Your task to perform on an android device: Go to network settings Image 0: 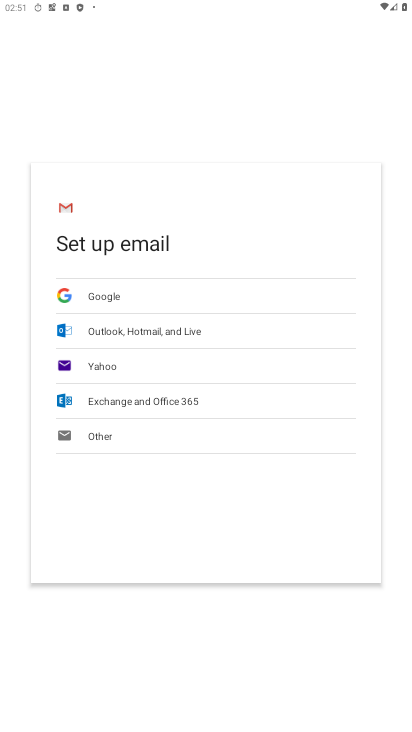
Step 0: press home button
Your task to perform on an android device: Go to network settings Image 1: 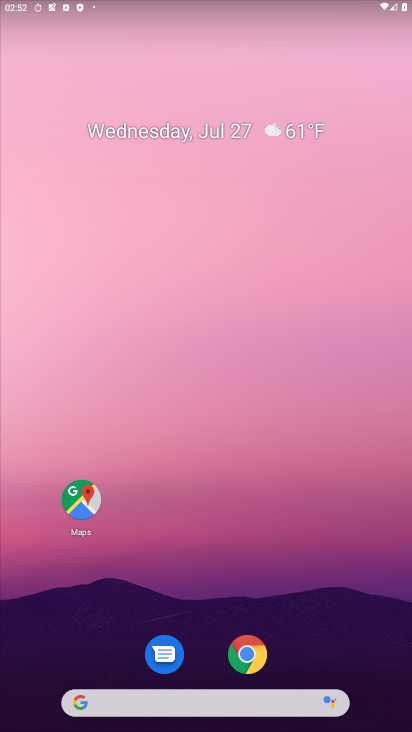
Step 1: drag from (192, 698) to (202, 129)
Your task to perform on an android device: Go to network settings Image 2: 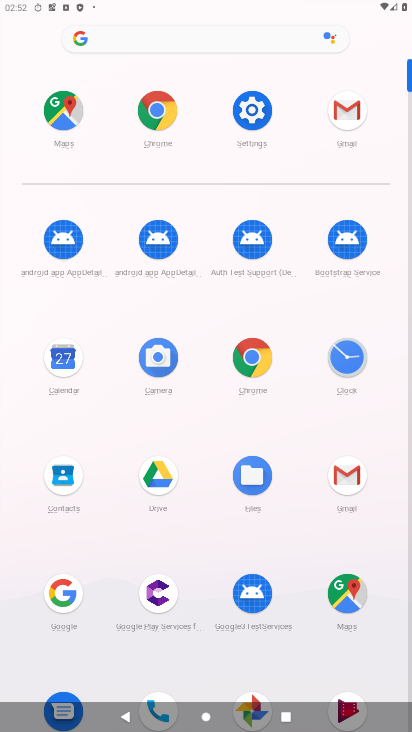
Step 2: click (240, 109)
Your task to perform on an android device: Go to network settings Image 3: 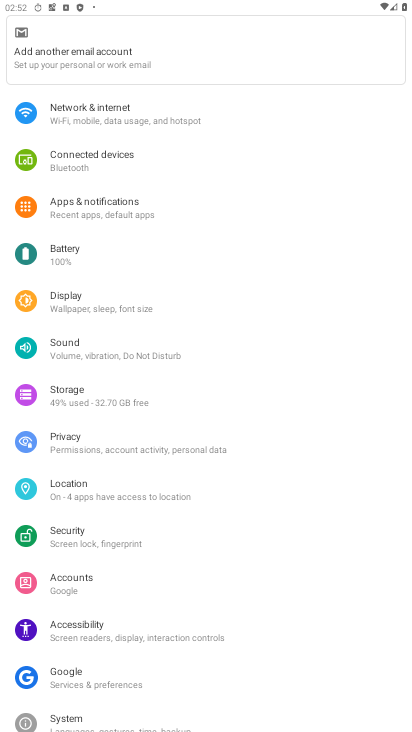
Step 3: click (158, 118)
Your task to perform on an android device: Go to network settings Image 4: 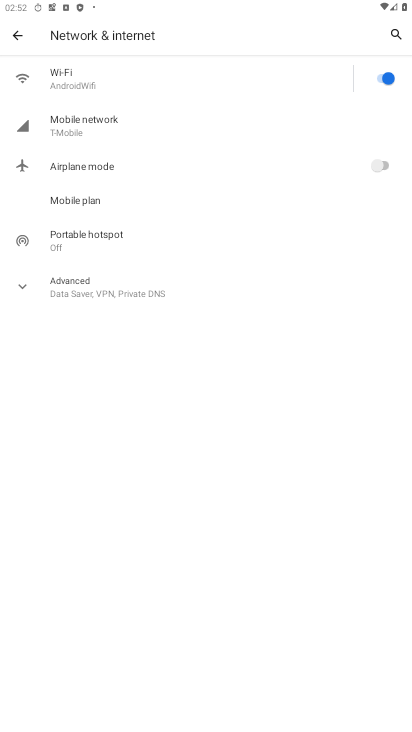
Step 4: task complete